Your task to perform on an android device: check data usage Image 0: 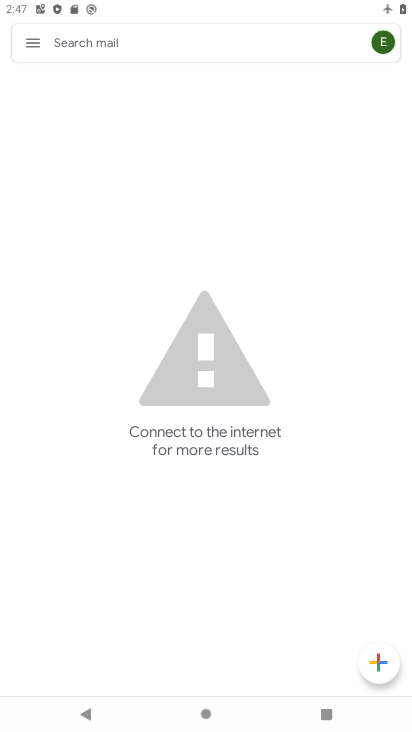
Step 0: press home button
Your task to perform on an android device: check data usage Image 1: 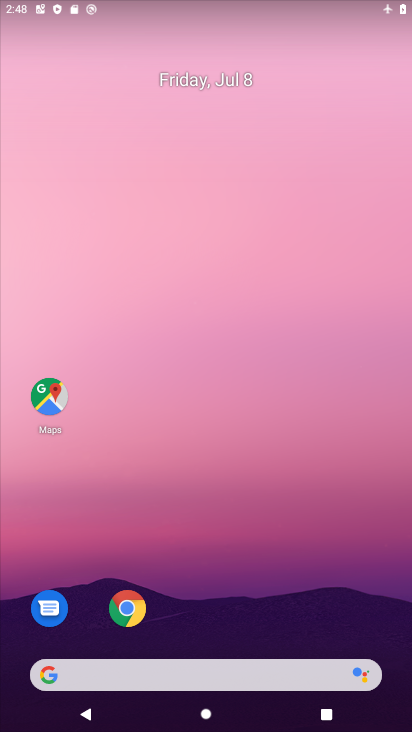
Step 1: drag from (268, 644) to (244, 33)
Your task to perform on an android device: check data usage Image 2: 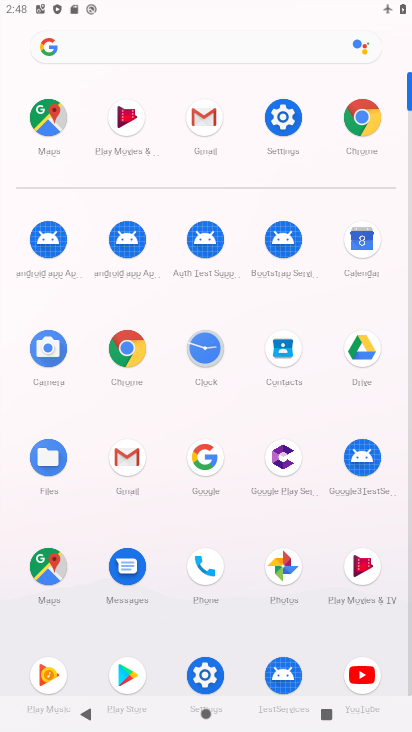
Step 2: click (279, 124)
Your task to perform on an android device: check data usage Image 3: 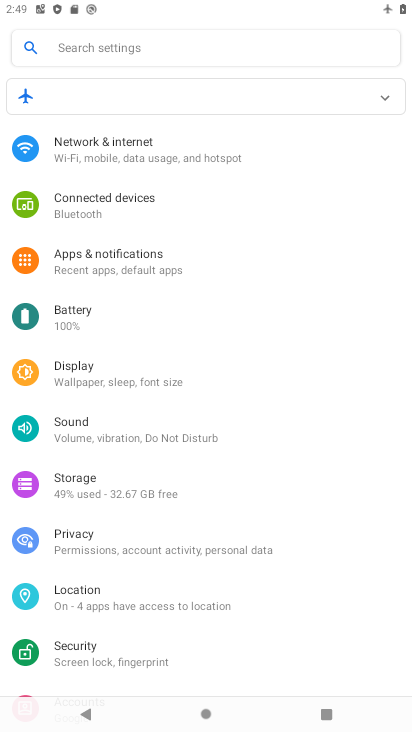
Step 3: click (146, 145)
Your task to perform on an android device: check data usage Image 4: 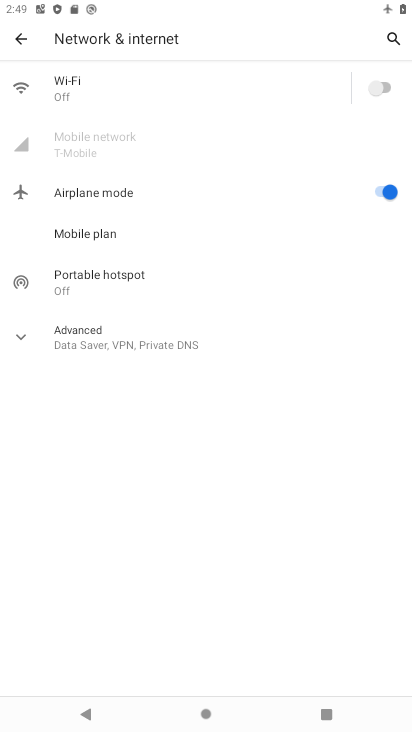
Step 4: task complete